Your task to perform on an android device: open app "Google Docs" Image 0: 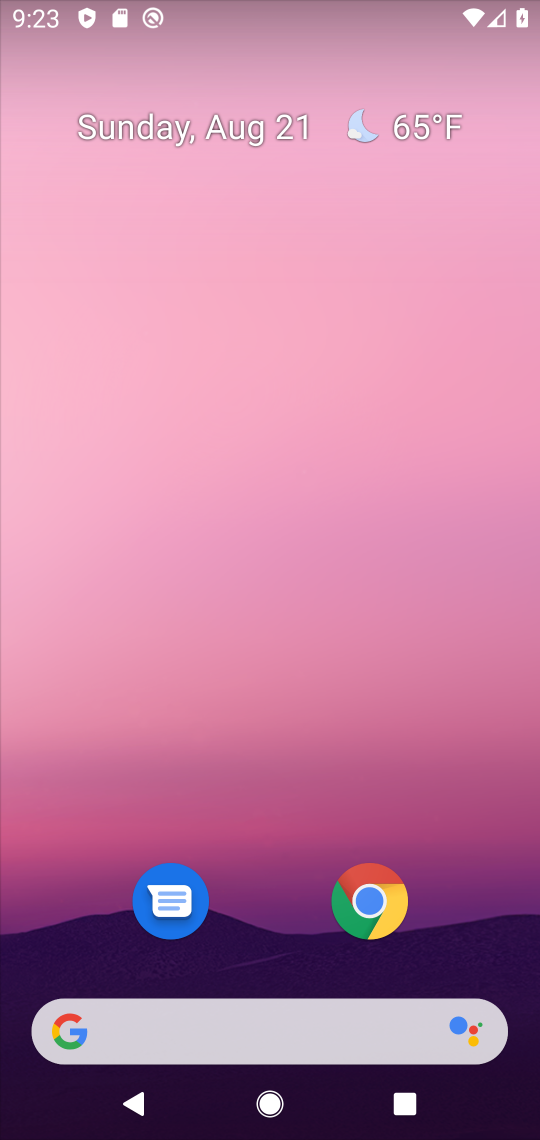
Step 0: press home button
Your task to perform on an android device: open app "Google Docs" Image 1: 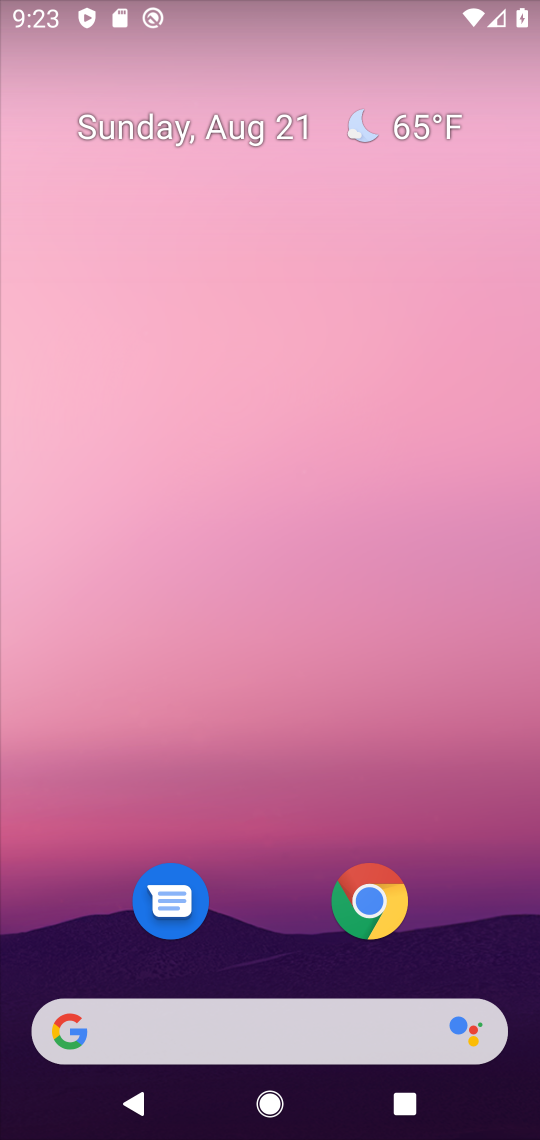
Step 1: drag from (459, 914) to (459, 202)
Your task to perform on an android device: open app "Google Docs" Image 2: 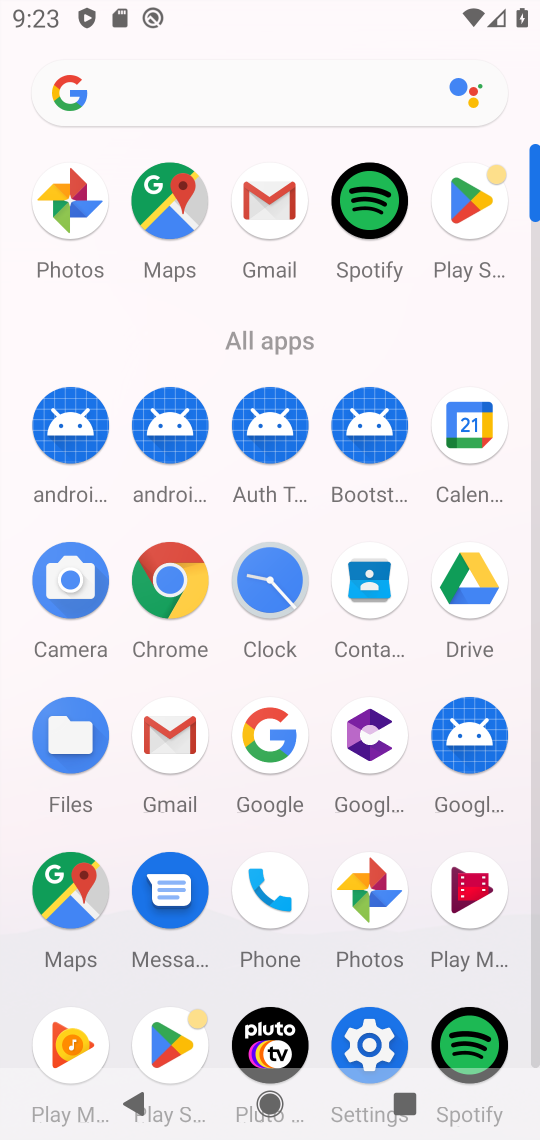
Step 2: click (476, 203)
Your task to perform on an android device: open app "Google Docs" Image 3: 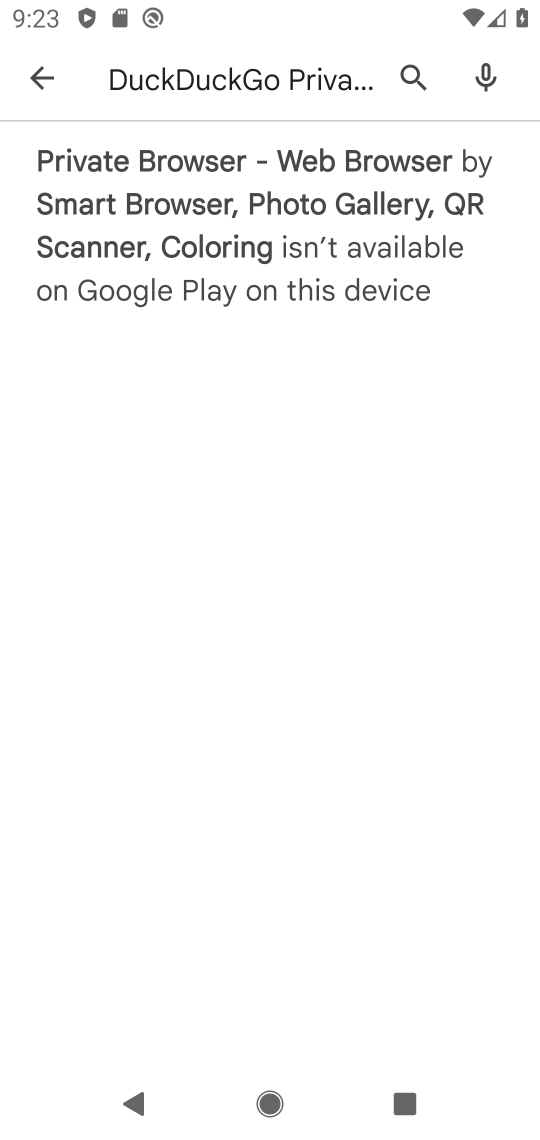
Step 3: press back button
Your task to perform on an android device: open app "Google Docs" Image 4: 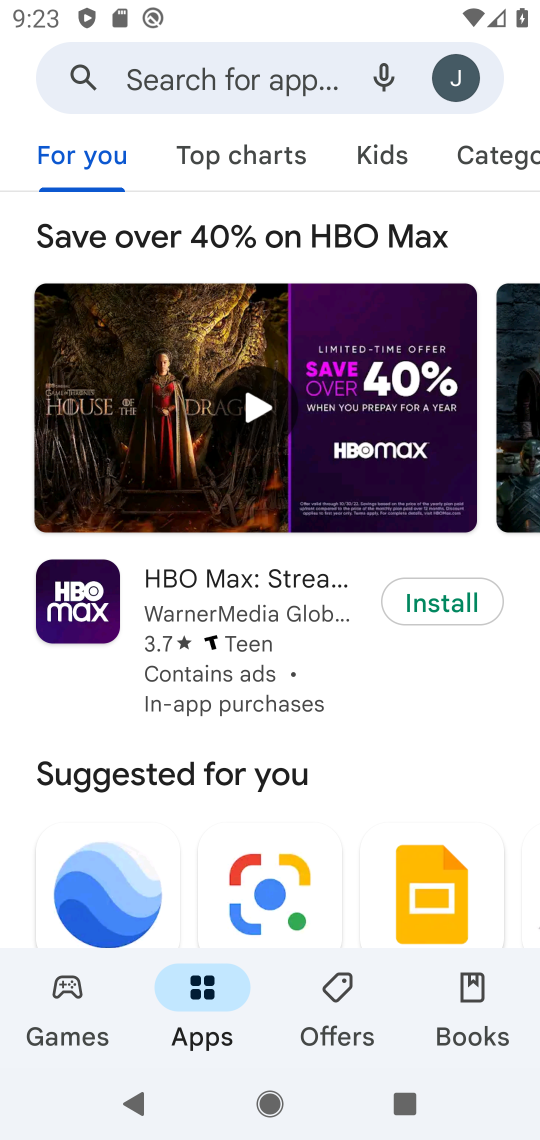
Step 4: click (259, 72)
Your task to perform on an android device: open app "Google Docs" Image 5: 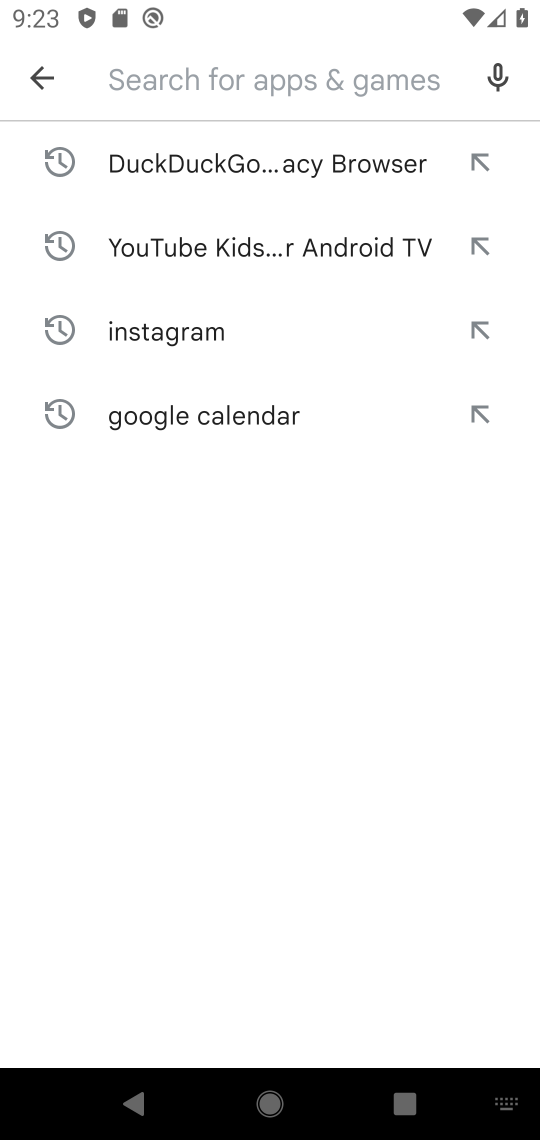
Step 5: type "google docs"
Your task to perform on an android device: open app "Google Docs" Image 6: 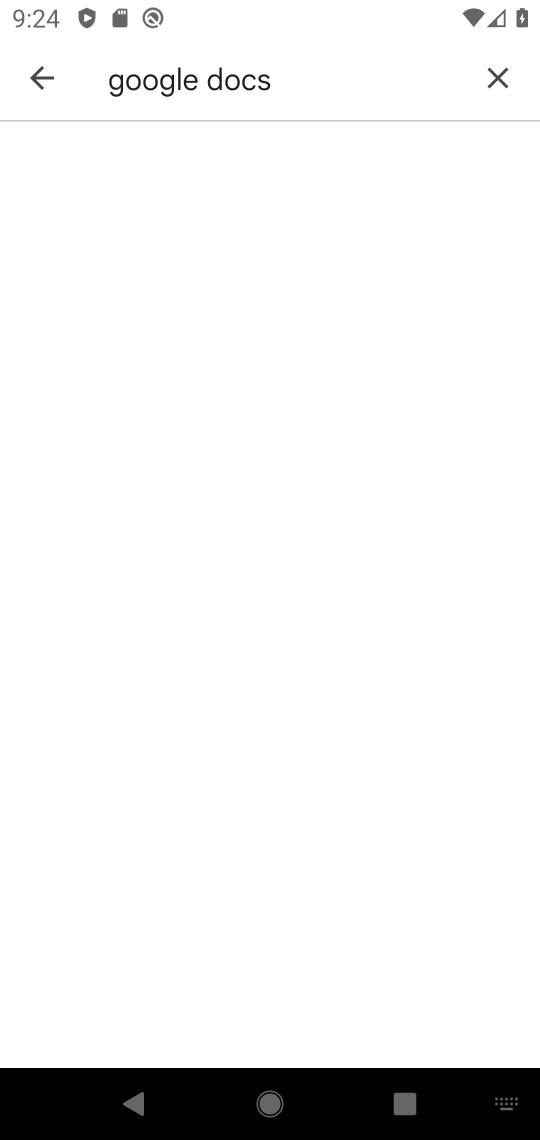
Step 6: task complete